Your task to perform on an android device: Open Google Maps and go to "Timeline" Image 0: 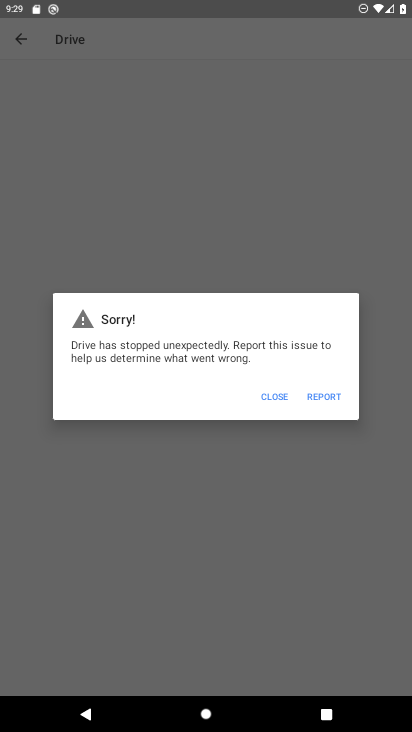
Step 0: press home button
Your task to perform on an android device: Open Google Maps and go to "Timeline" Image 1: 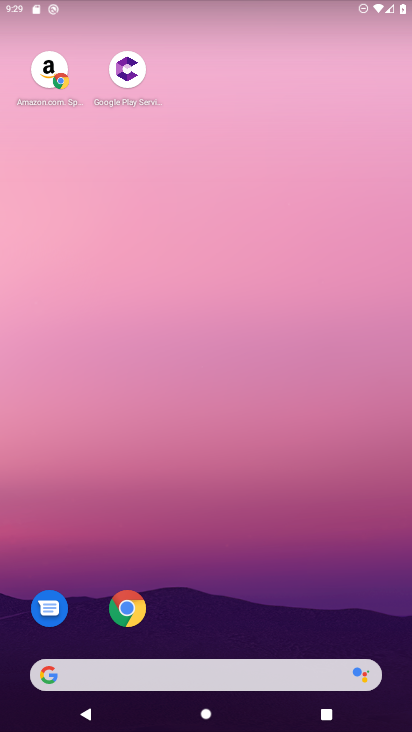
Step 1: drag from (279, 660) to (251, 166)
Your task to perform on an android device: Open Google Maps and go to "Timeline" Image 2: 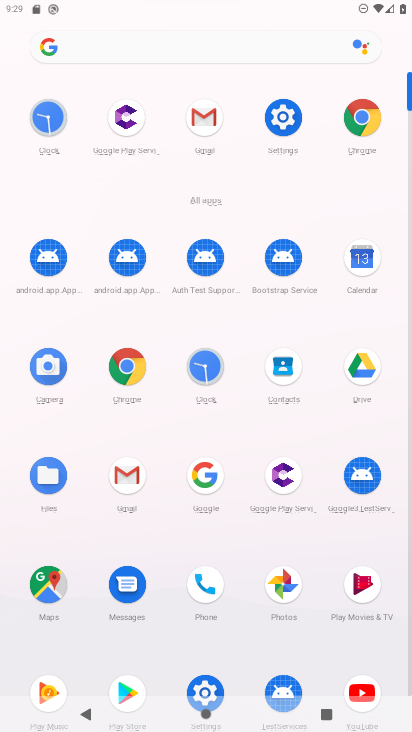
Step 2: click (48, 575)
Your task to perform on an android device: Open Google Maps and go to "Timeline" Image 3: 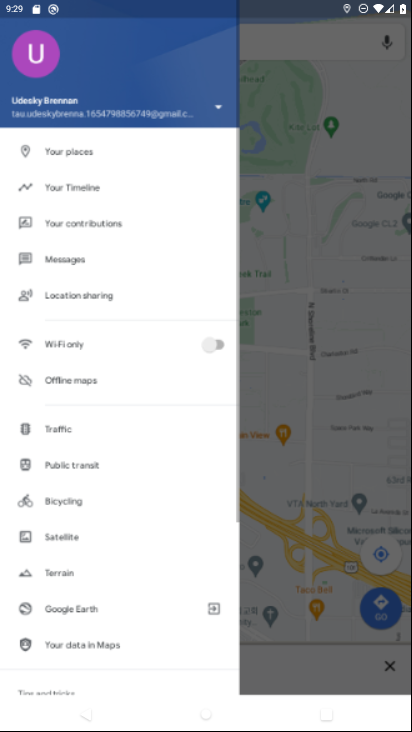
Step 3: click (67, 191)
Your task to perform on an android device: Open Google Maps and go to "Timeline" Image 4: 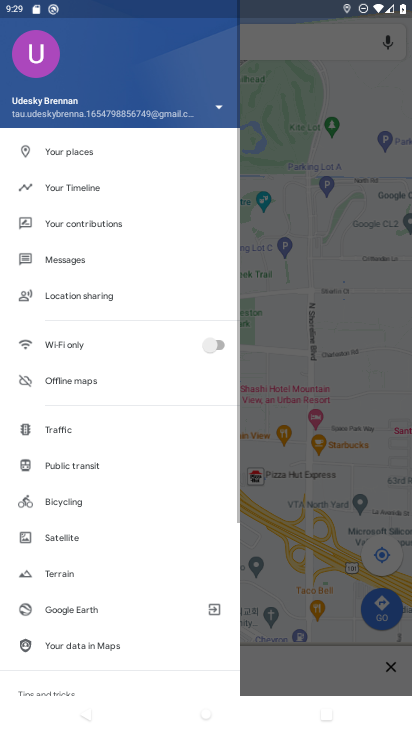
Step 4: click (122, 190)
Your task to perform on an android device: Open Google Maps and go to "Timeline" Image 5: 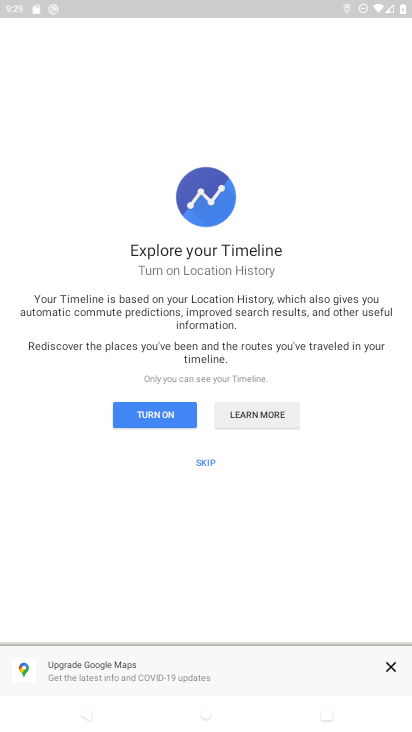
Step 5: click (211, 462)
Your task to perform on an android device: Open Google Maps and go to "Timeline" Image 6: 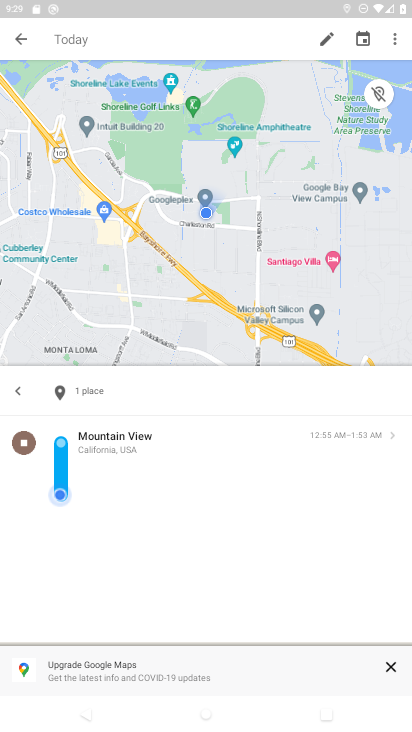
Step 6: task complete